Your task to perform on an android device: When is my next appointment? Image 0: 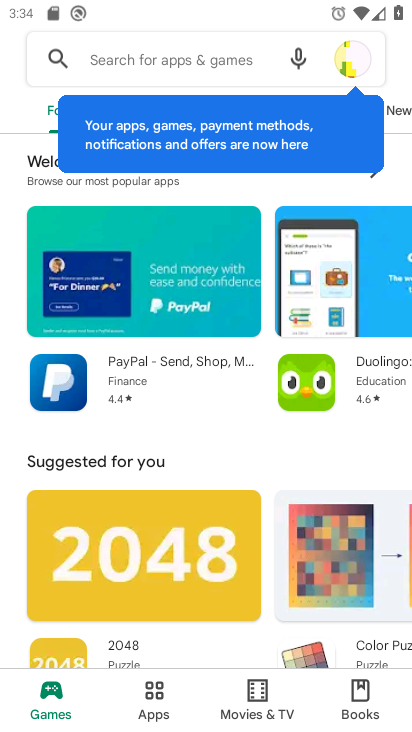
Step 0: press home button
Your task to perform on an android device: When is my next appointment? Image 1: 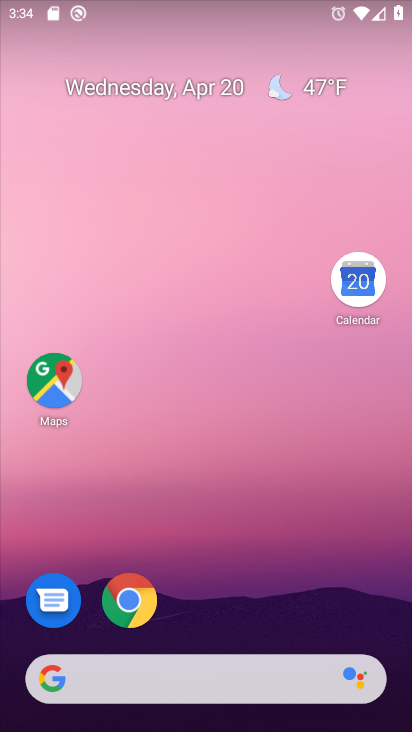
Step 1: drag from (270, 611) to (273, 242)
Your task to perform on an android device: When is my next appointment? Image 2: 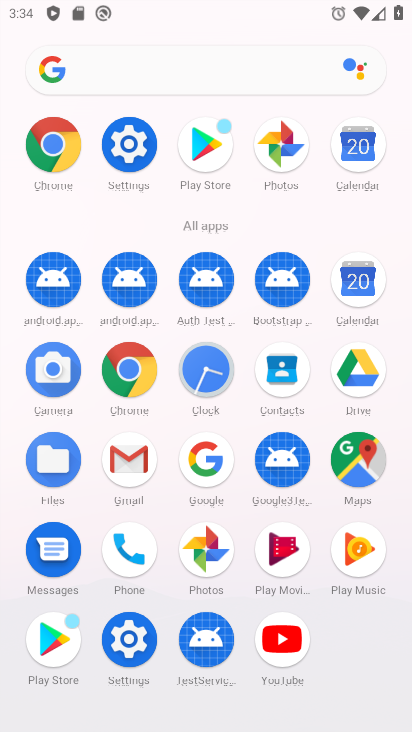
Step 2: click (355, 270)
Your task to perform on an android device: When is my next appointment? Image 3: 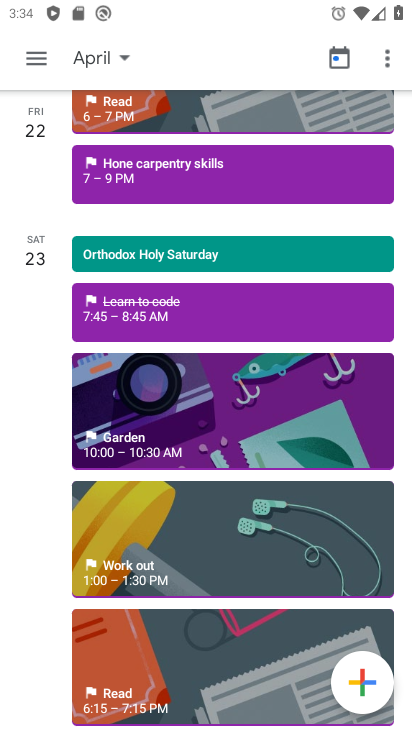
Step 3: click (41, 62)
Your task to perform on an android device: When is my next appointment? Image 4: 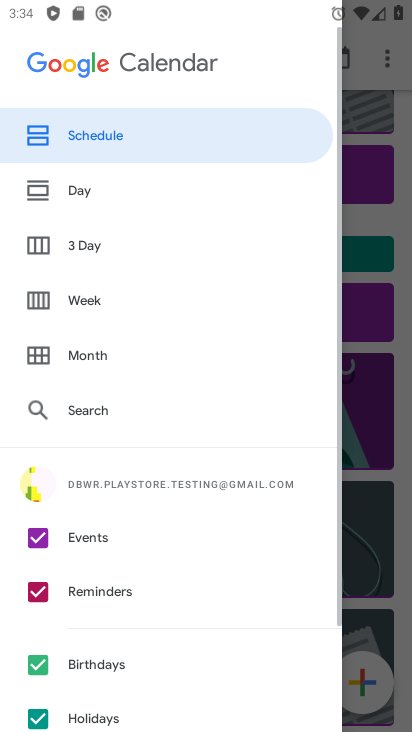
Step 4: click (88, 339)
Your task to perform on an android device: When is my next appointment? Image 5: 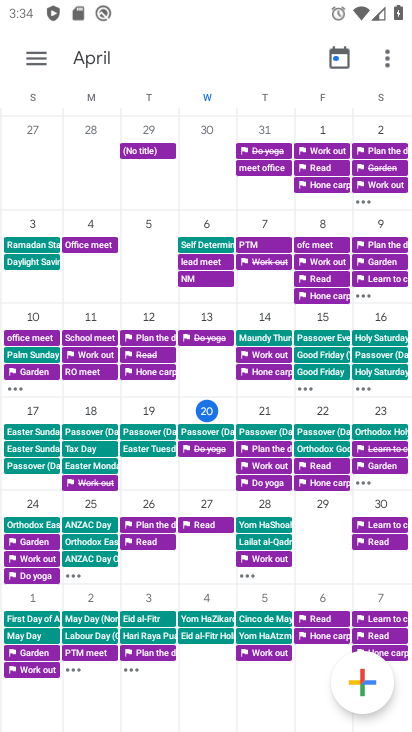
Step 5: click (267, 426)
Your task to perform on an android device: When is my next appointment? Image 6: 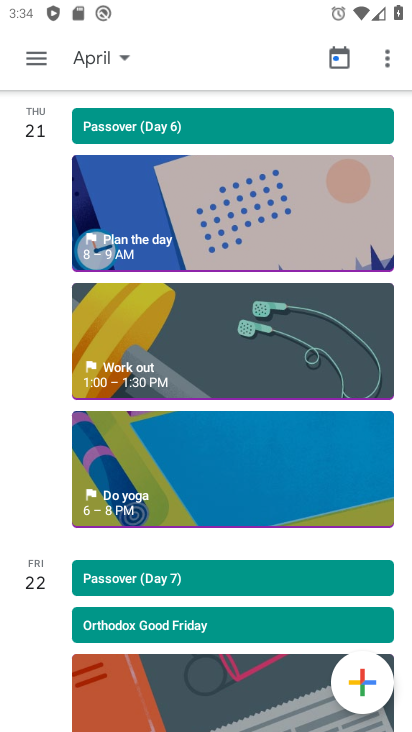
Step 6: click (165, 244)
Your task to perform on an android device: When is my next appointment? Image 7: 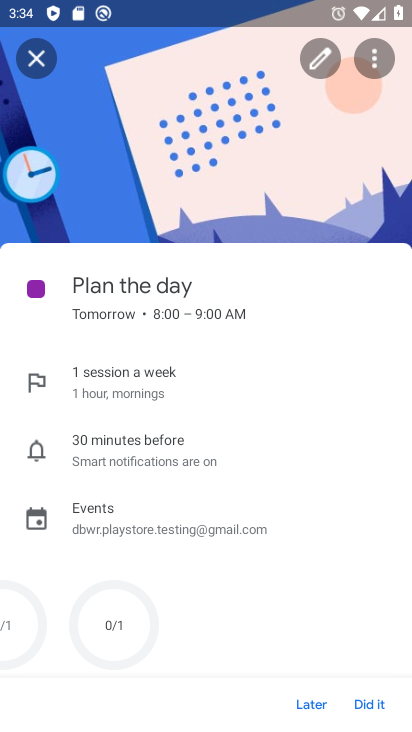
Step 7: task complete